Your task to perform on an android device: Go to notification settings Image 0: 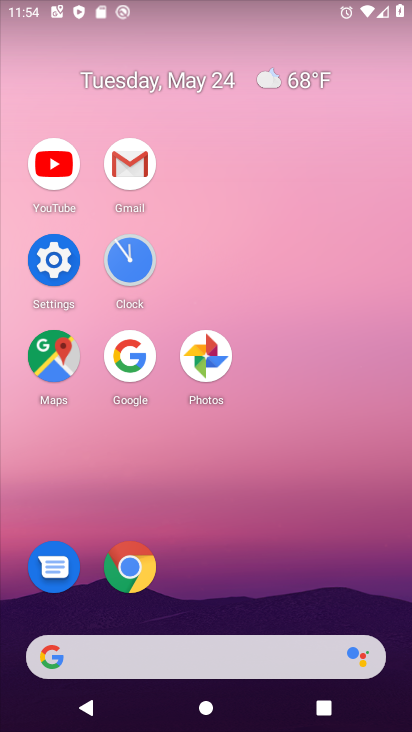
Step 0: click (71, 259)
Your task to perform on an android device: Go to notification settings Image 1: 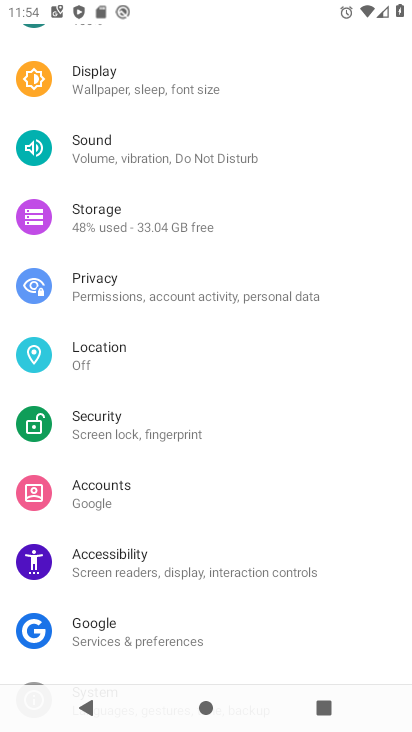
Step 1: drag from (241, 159) to (192, 598)
Your task to perform on an android device: Go to notification settings Image 2: 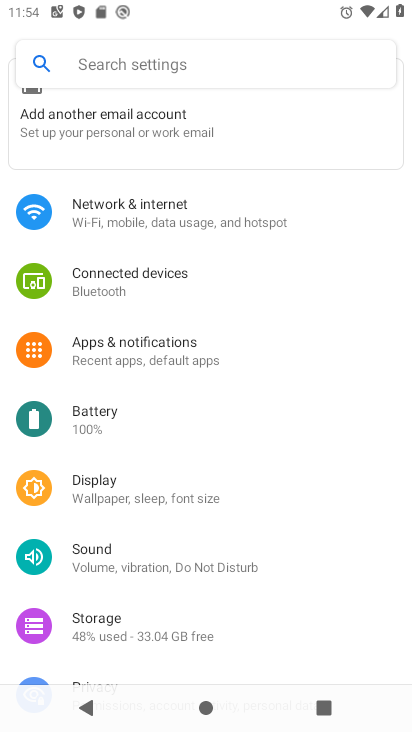
Step 2: click (138, 374)
Your task to perform on an android device: Go to notification settings Image 3: 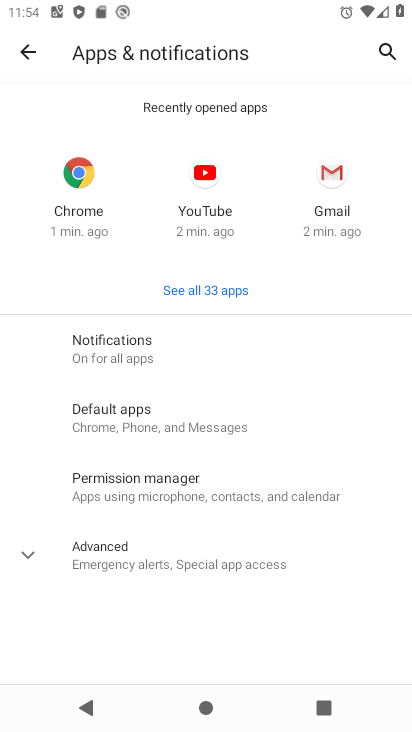
Step 3: click (132, 351)
Your task to perform on an android device: Go to notification settings Image 4: 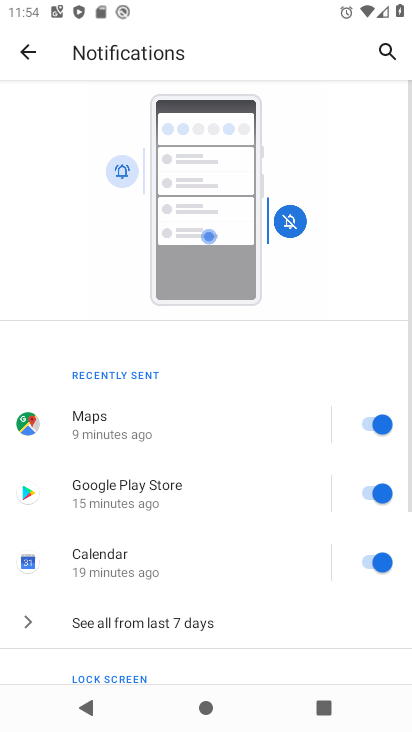
Step 4: task complete